Your task to perform on an android device: Go to wifi settings Image 0: 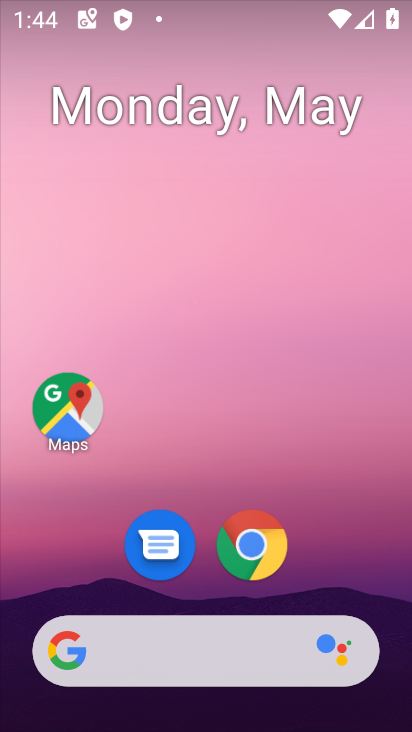
Step 0: drag from (220, 625) to (206, 147)
Your task to perform on an android device: Go to wifi settings Image 1: 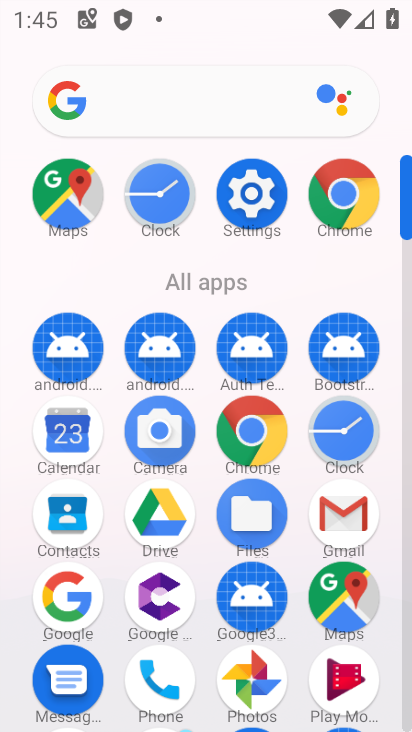
Step 1: click (257, 185)
Your task to perform on an android device: Go to wifi settings Image 2: 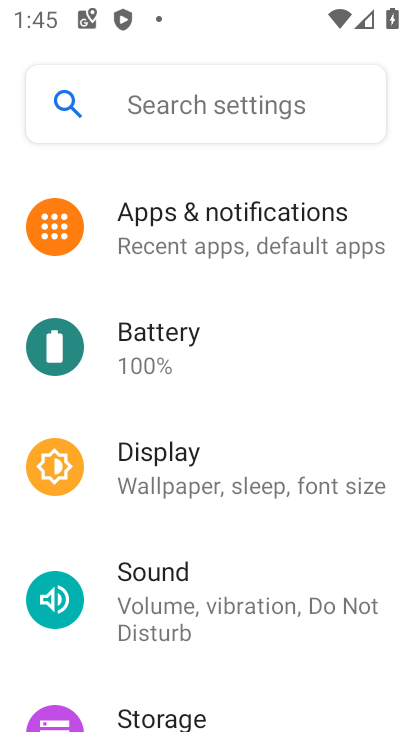
Step 2: click (290, 232)
Your task to perform on an android device: Go to wifi settings Image 3: 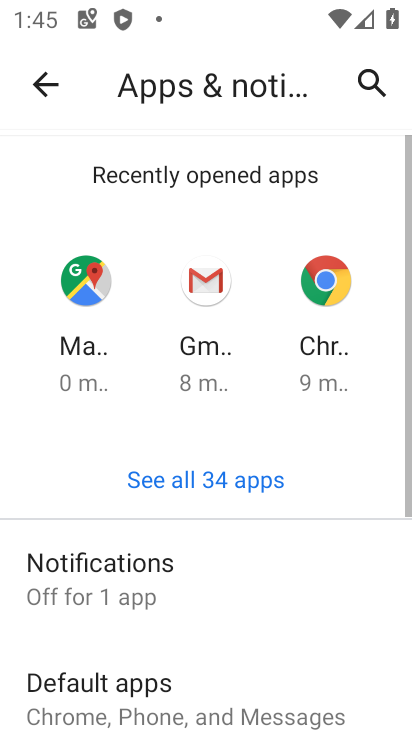
Step 3: click (48, 78)
Your task to perform on an android device: Go to wifi settings Image 4: 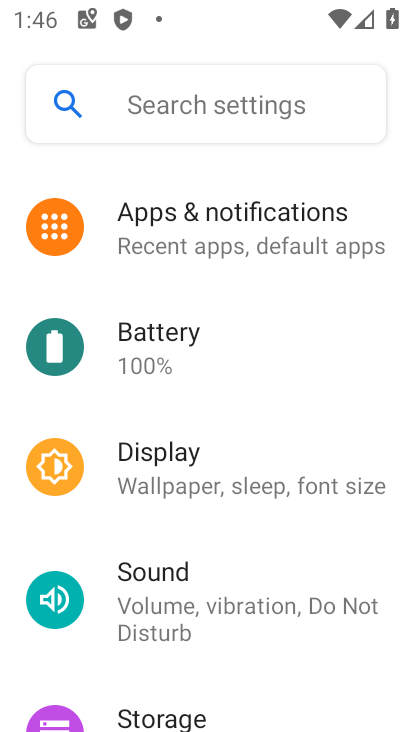
Step 4: drag from (249, 209) to (310, 721)
Your task to perform on an android device: Go to wifi settings Image 5: 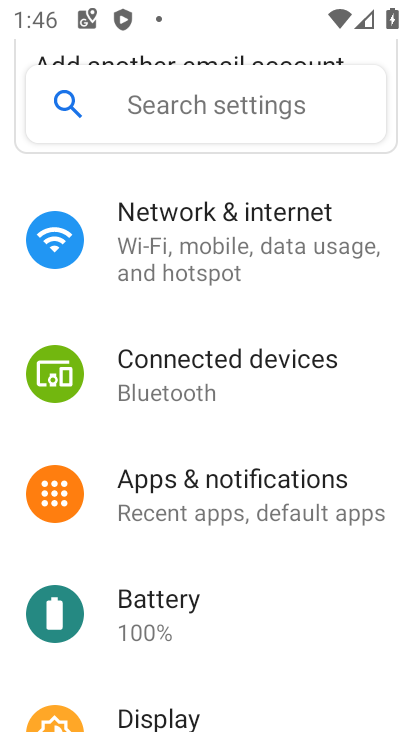
Step 5: click (267, 240)
Your task to perform on an android device: Go to wifi settings Image 6: 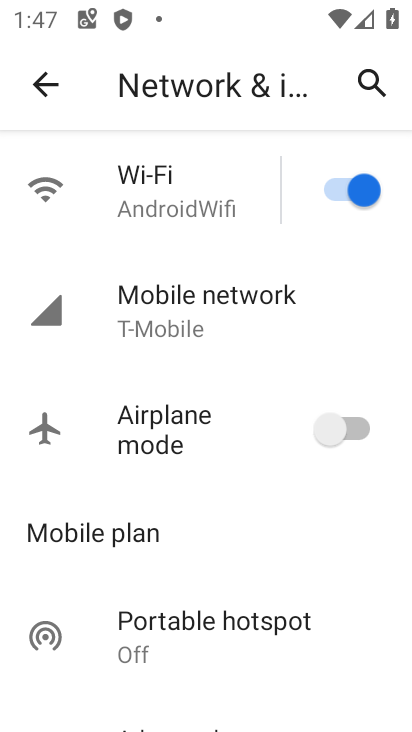
Step 6: click (188, 190)
Your task to perform on an android device: Go to wifi settings Image 7: 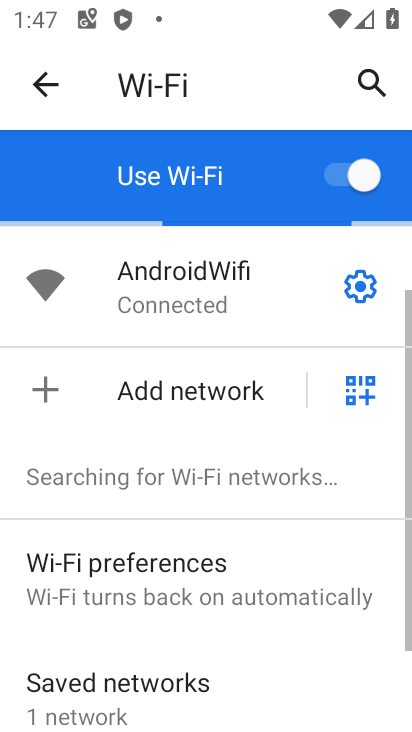
Step 7: click (356, 278)
Your task to perform on an android device: Go to wifi settings Image 8: 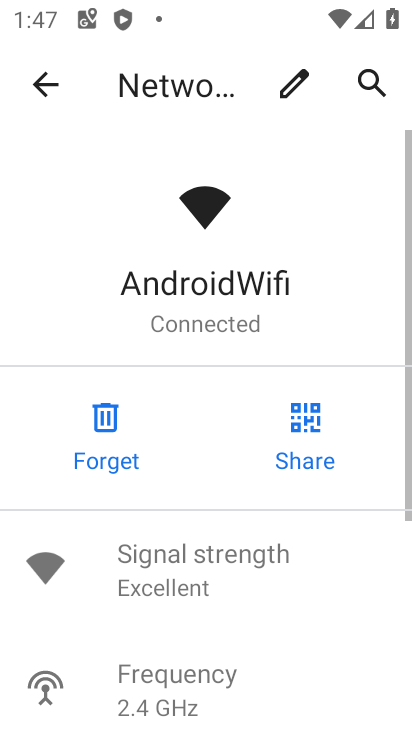
Step 8: task complete